Your task to perform on an android device: turn off picture-in-picture Image 0: 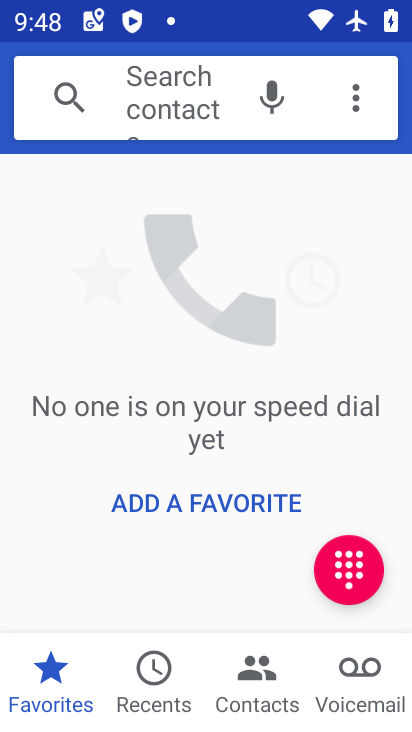
Step 0: press home button
Your task to perform on an android device: turn off picture-in-picture Image 1: 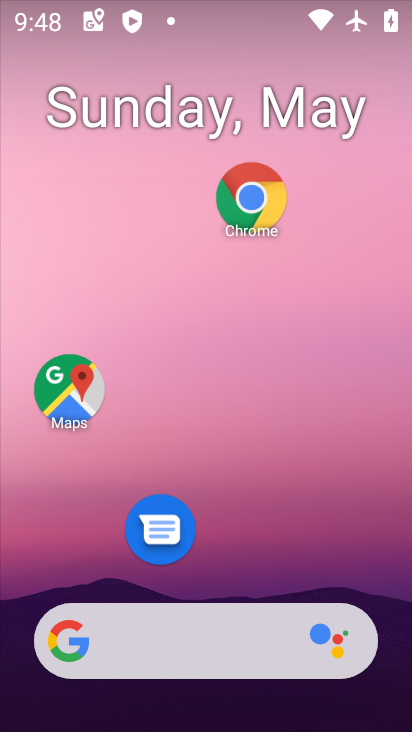
Step 1: click (237, 201)
Your task to perform on an android device: turn off picture-in-picture Image 2: 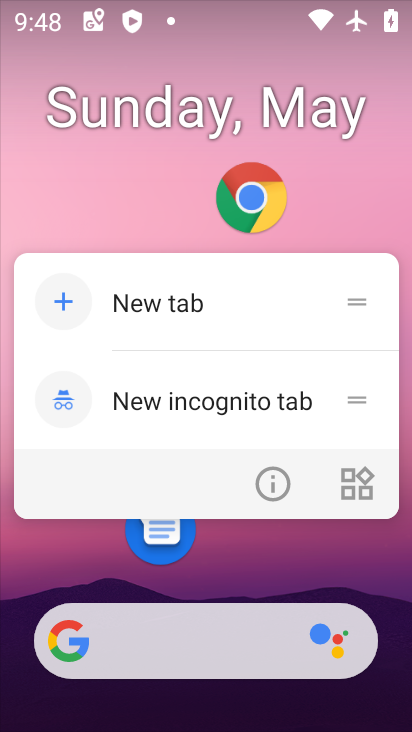
Step 2: click (273, 482)
Your task to perform on an android device: turn off picture-in-picture Image 3: 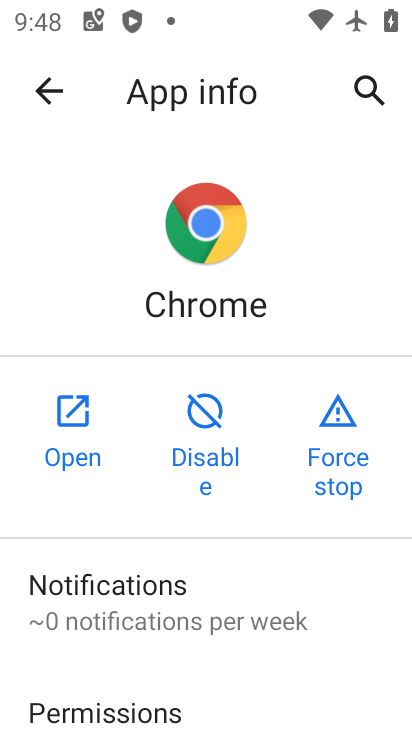
Step 3: drag from (144, 617) to (144, 178)
Your task to perform on an android device: turn off picture-in-picture Image 4: 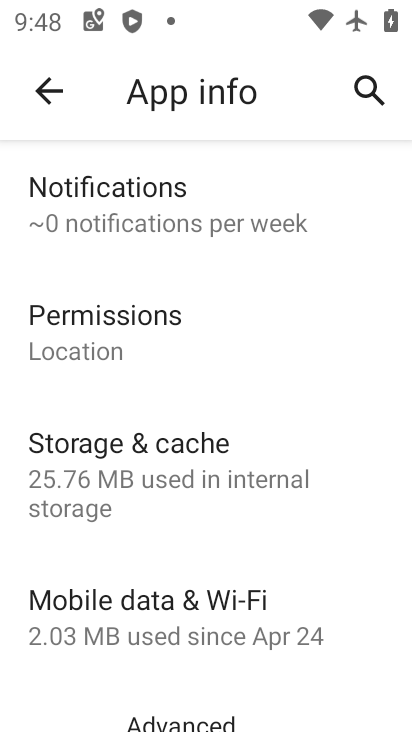
Step 4: drag from (100, 595) to (134, 248)
Your task to perform on an android device: turn off picture-in-picture Image 5: 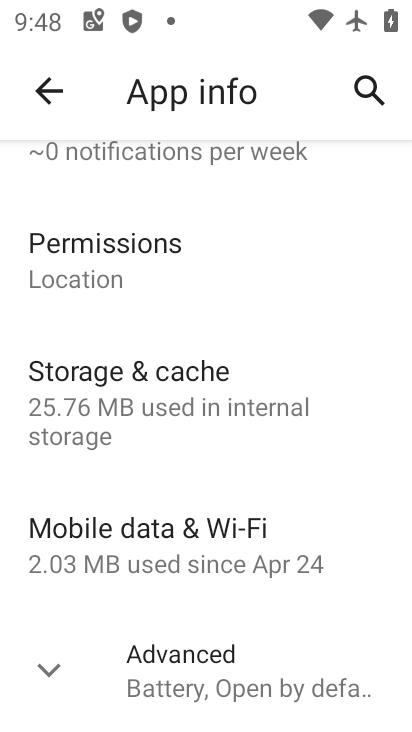
Step 5: click (145, 677)
Your task to perform on an android device: turn off picture-in-picture Image 6: 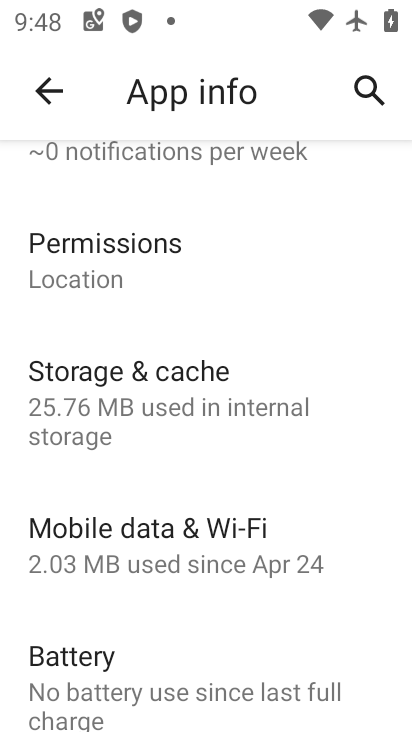
Step 6: drag from (156, 701) to (180, 346)
Your task to perform on an android device: turn off picture-in-picture Image 7: 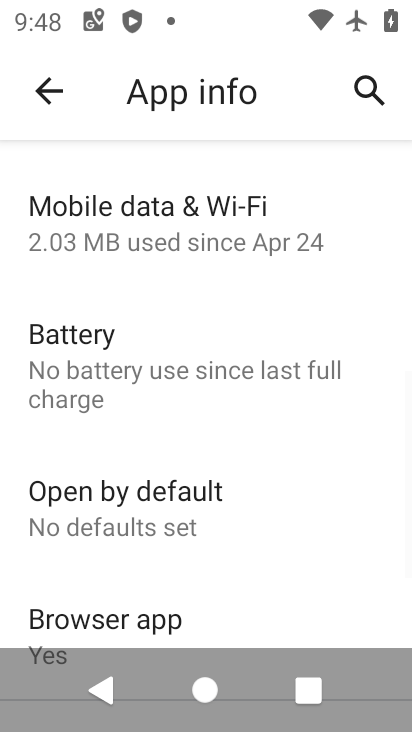
Step 7: drag from (207, 609) to (240, 383)
Your task to perform on an android device: turn off picture-in-picture Image 8: 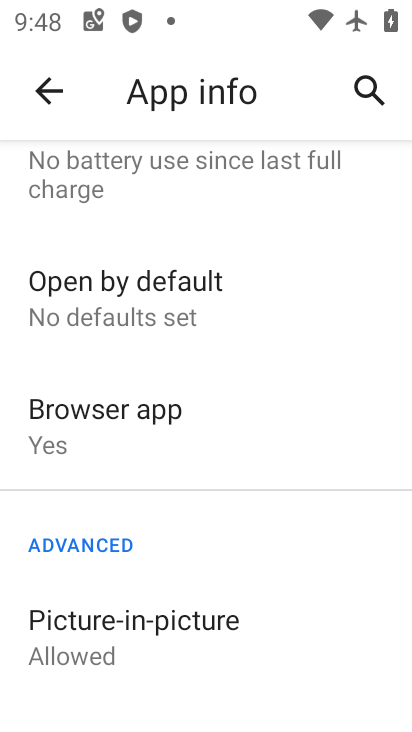
Step 8: click (140, 658)
Your task to perform on an android device: turn off picture-in-picture Image 9: 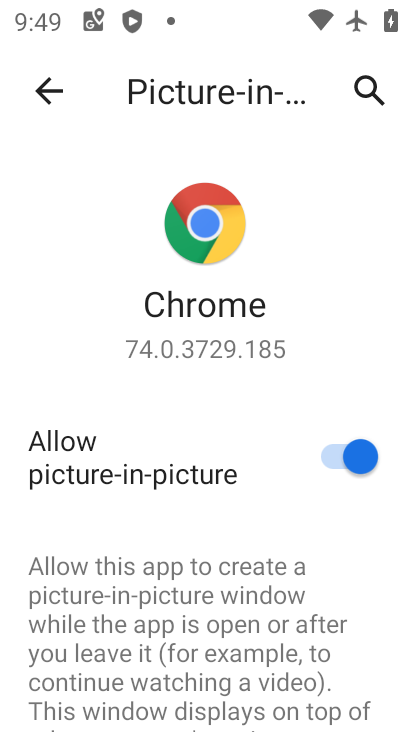
Step 9: click (354, 448)
Your task to perform on an android device: turn off picture-in-picture Image 10: 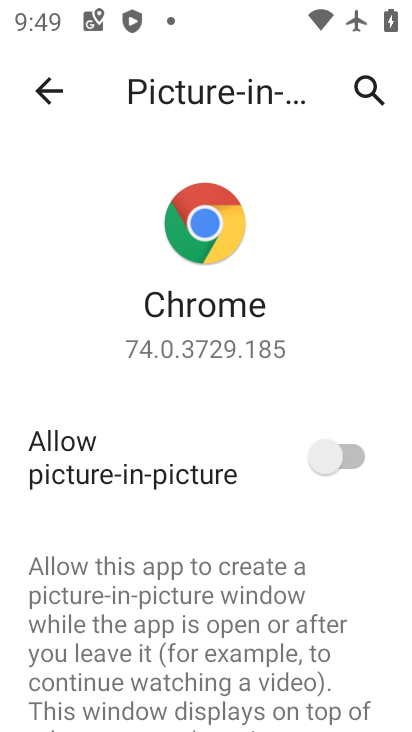
Step 10: task complete